Your task to perform on an android device: Open calendar and show me the first week of next month Image 0: 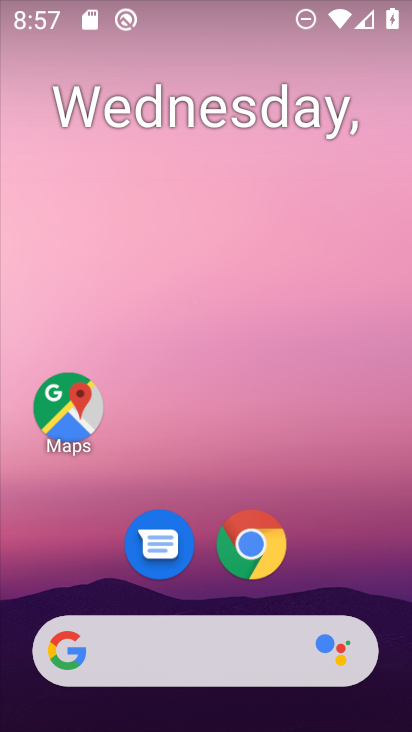
Step 0: drag from (340, 515) to (342, 138)
Your task to perform on an android device: Open calendar and show me the first week of next month Image 1: 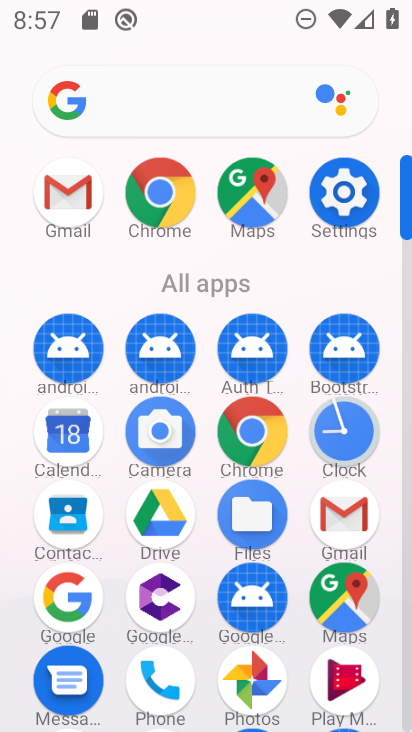
Step 1: click (78, 434)
Your task to perform on an android device: Open calendar and show me the first week of next month Image 2: 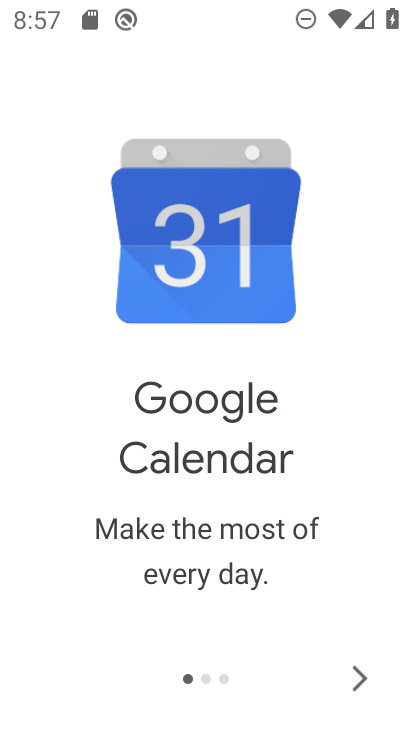
Step 2: click (361, 666)
Your task to perform on an android device: Open calendar and show me the first week of next month Image 3: 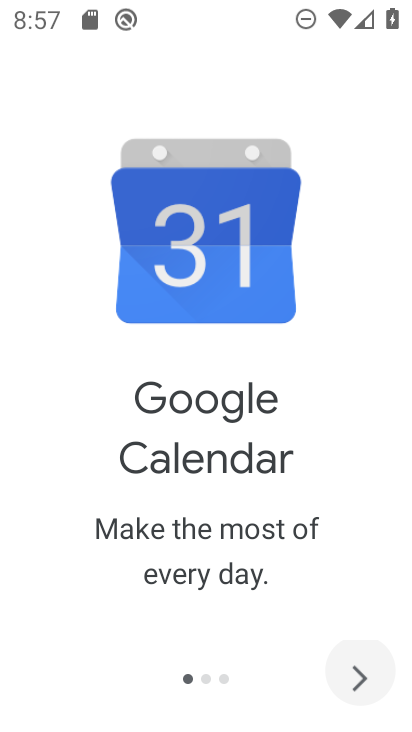
Step 3: click (361, 666)
Your task to perform on an android device: Open calendar and show me the first week of next month Image 4: 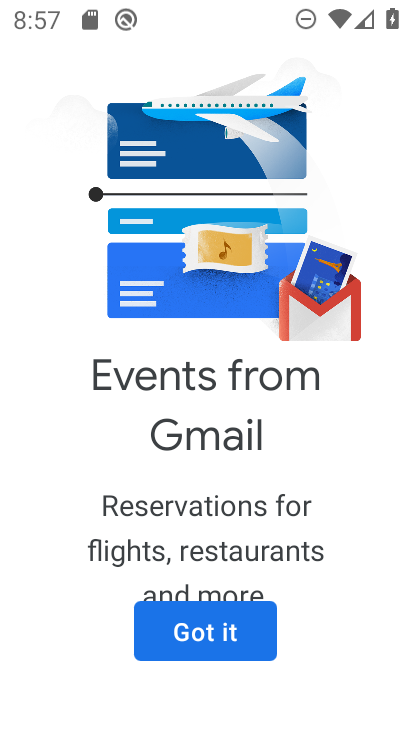
Step 4: click (247, 617)
Your task to perform on an android device: Open calendar and show me the first week of next month Image 5: 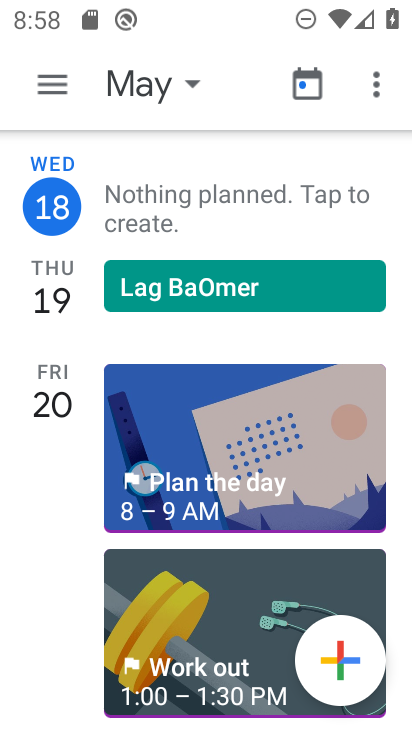
Step 5: click (113, 79)
Your task to perform on an android device: Open calendar and show me the first week of next month Image 6: 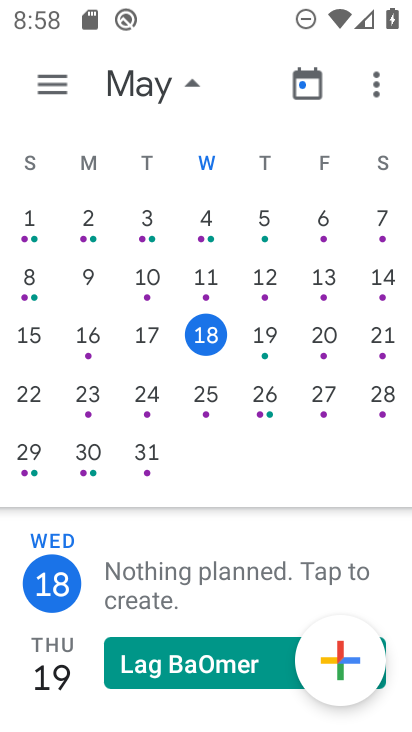
Step 6: drag from (362, 262) to (55, 264)
Your task to perform on an android device: Open calendar and show me the first week of next month Image 7: 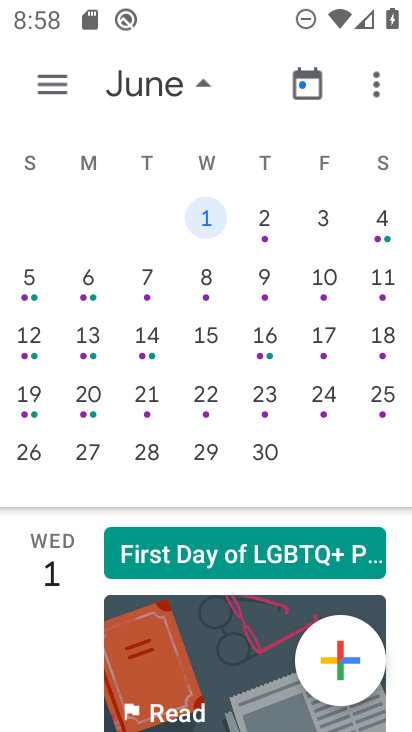
Step 7: click (194, 209)
Your task to perform on an android device: Open calendar and show me the first week of next month Image 8: 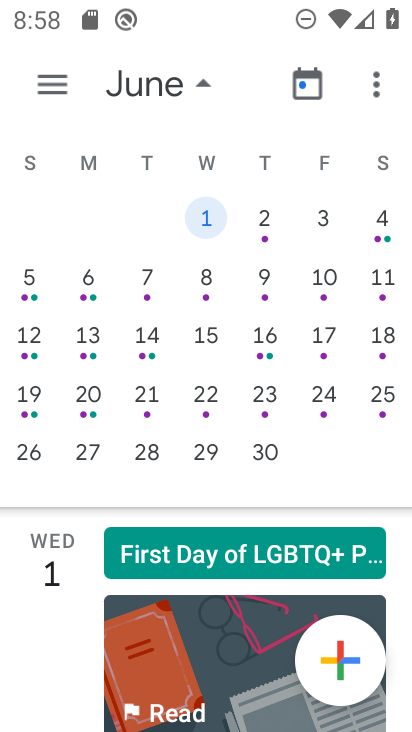
Step 8: click (37, 76)
Your task to perform on an android device: Open calendar and show me the first week of next month Image 9: 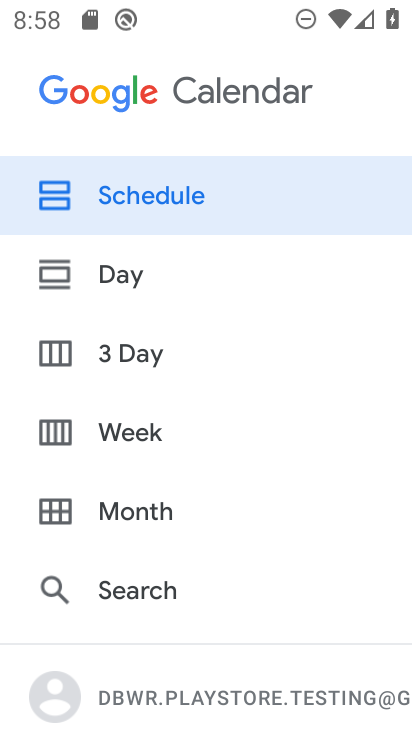
Step 9: click (131, 440)
Your task to perform on an android device: Open calendar and show me the first week of next month Image 10: 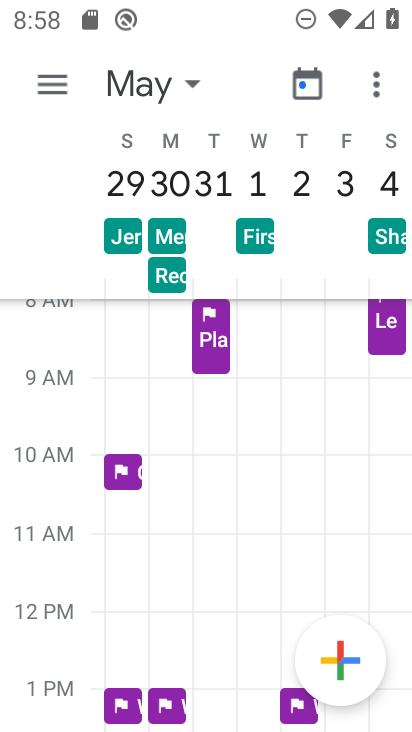
Step 10: task complete